Your task to perform on an android device: toggle pop-ups in chrome Image 0: 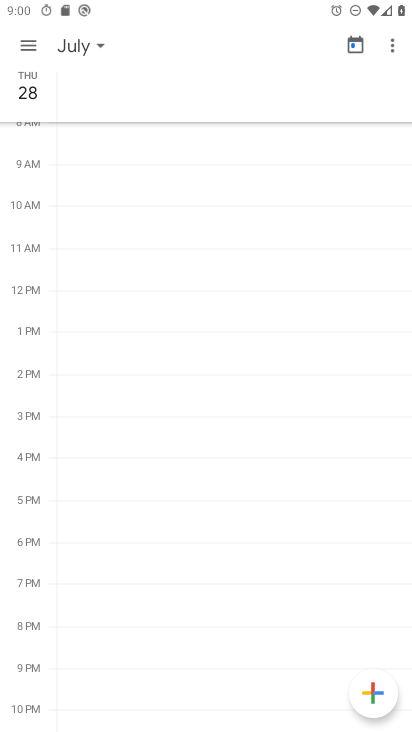
Step 0: press home button
Your task to perform on an android device: toggle pop-ups in chrome Image 1: 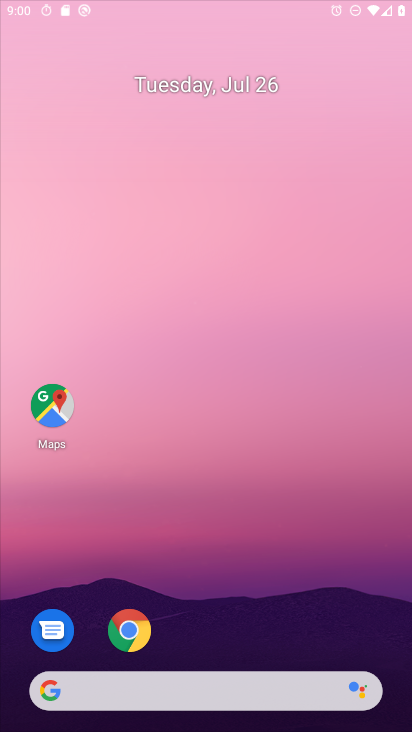
Step 1: drag from (256, 589) to (242, 136)
Your task to perform on an android device: toggle pop-ups in chrome Image 2: 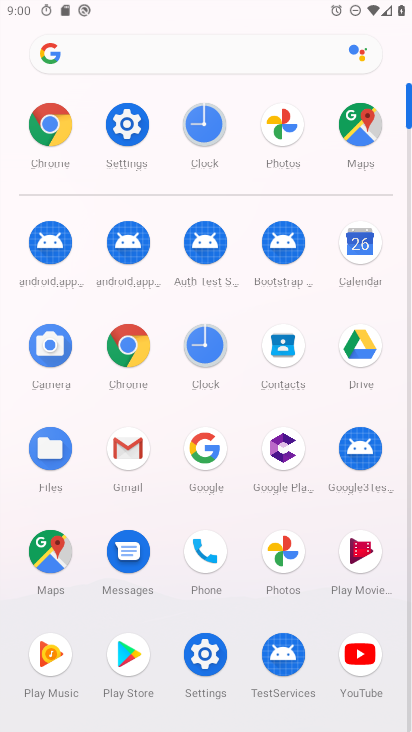
Step 2: click (133, 358)
Your task to perform on an android device: toggle pop-ups in chrome Image 3: 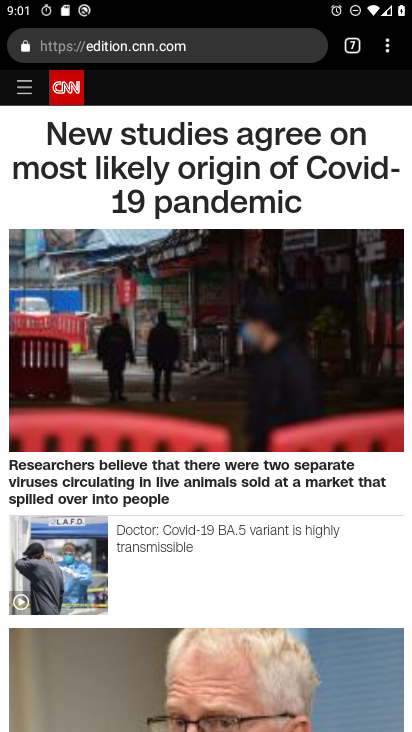
Step 3: click (392, 43)
Your task to perform on an android device: toggle pop-ups in chrome Image 4: 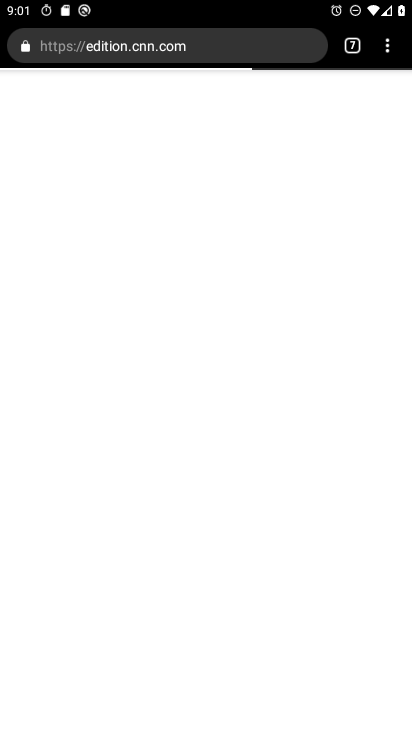
Step 4: click (385, 52)
Your task to perform on an android device: toggle pop-ups in chrome Image 5: 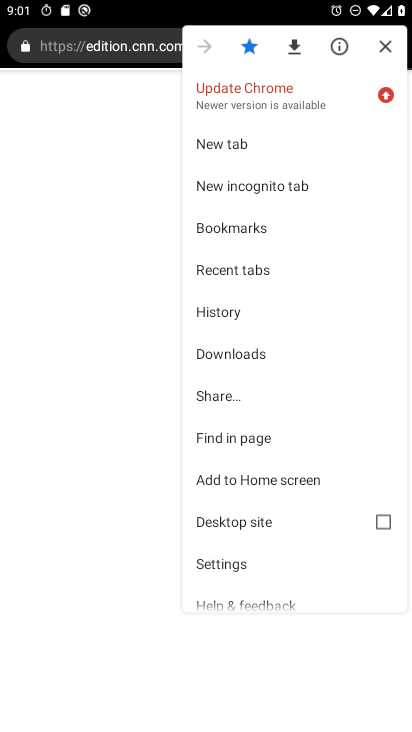
Step 5: click (253, 569)
Your task to perform on an android device: toggle pop-ups in chrome Image 6: 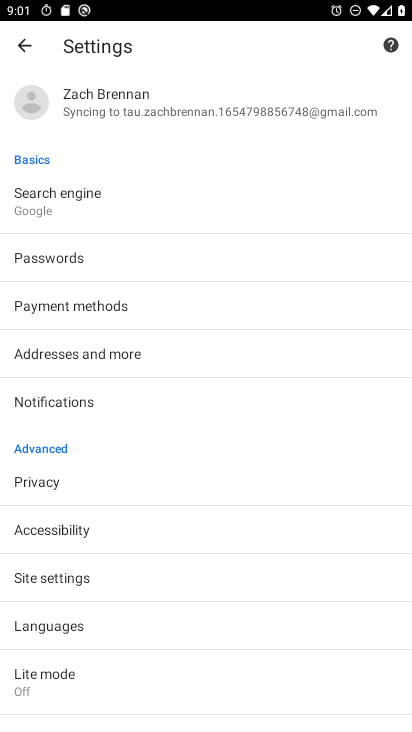
Step 6: click (138, 574)
Your task to perform on an android device: toggle pop-ups in chrome Image 7: 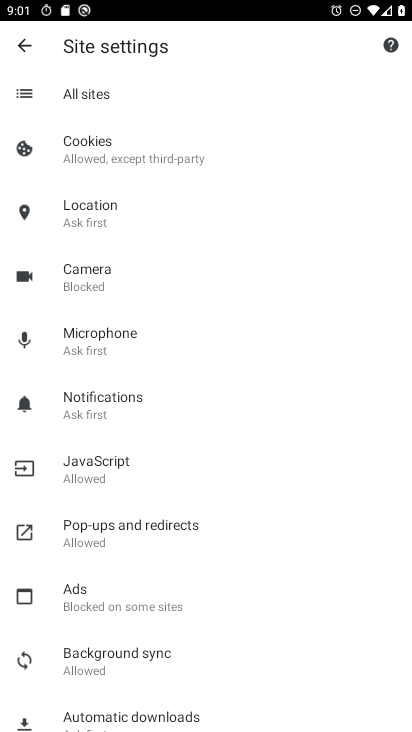
Step 7: click (189, 541)
Your task to perform on an android device: toggle pop-ups in chrome Image 8: 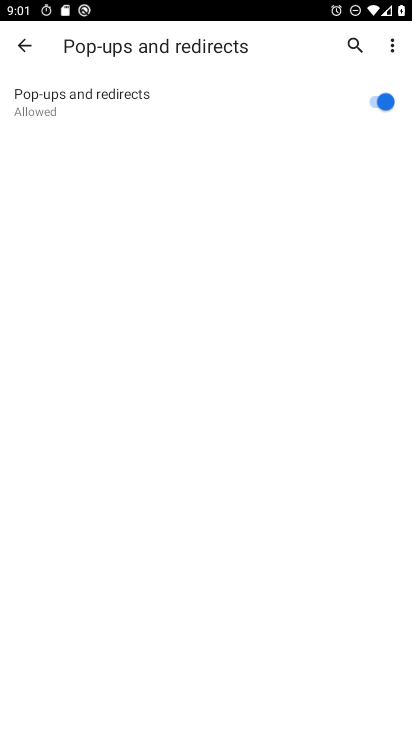
Step 8: click (376, 101)
Your task to perform on an android device: toggle pop-ups in chrome Image 9: 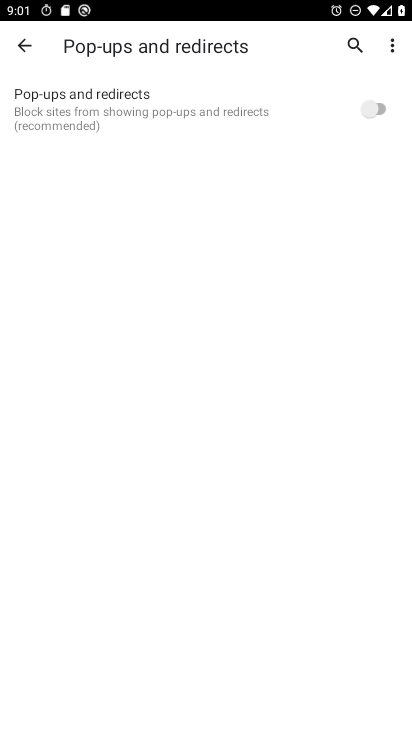
Step 9: task complete